Your task to perform on an android device: Is it going to rain today? Image 0: 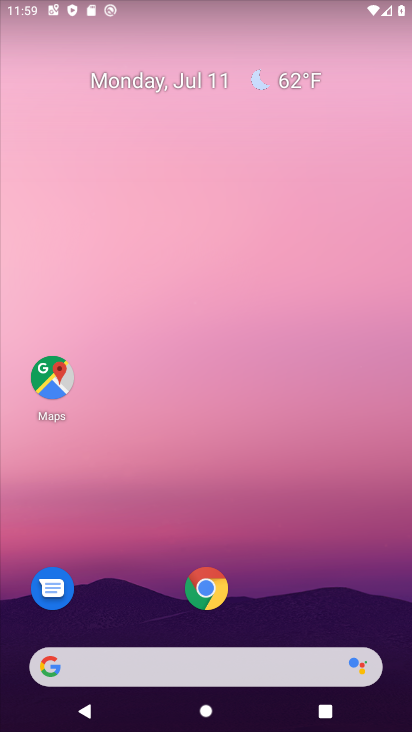
Step 0: drag from (174, 581) to (163, 0)
Your task to perform on an android device: Is it going to rain today? Image 1: 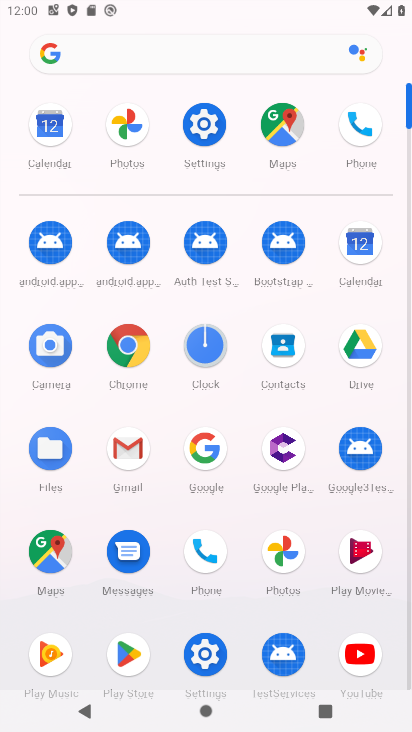
Step 1: click (196, 454)
Your task to perform on an android device: Is it going to rain today? Image 2: 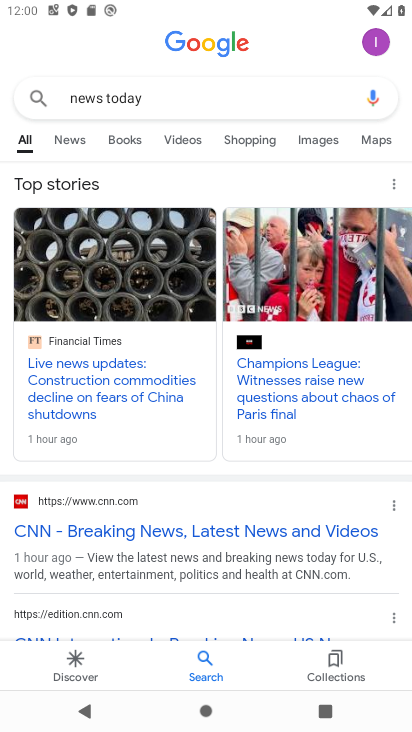
Step 2: click (186, 93)
Your task to perform on an android device: Is it going to rain today? Image 3: 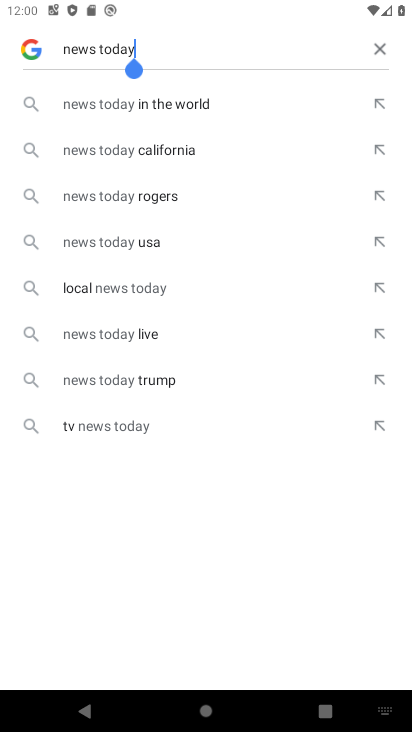
Step 3: click (384, 42)
Your task to perform on an android device: Is it going to rain today? Image 4: 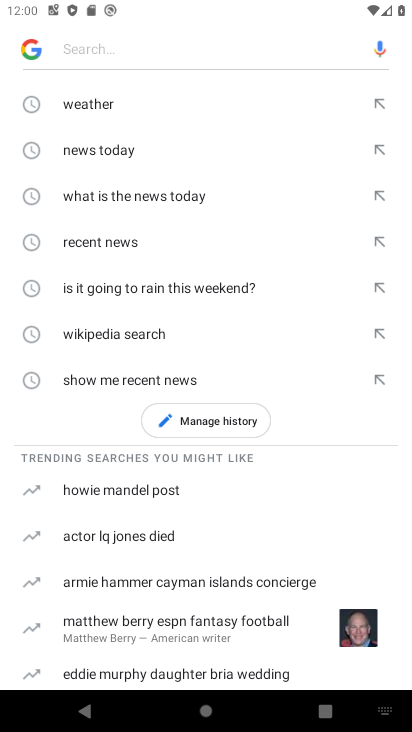
Step 4: click (140, 94)
Your task to perform on an android device: Is it going to rain today? Image 5: 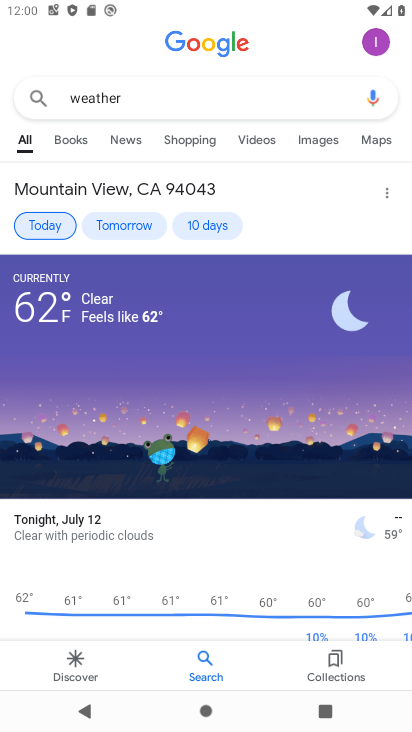
Step 5: task complete